Your task to perform on an android device: install app "Reddit" Image 0: 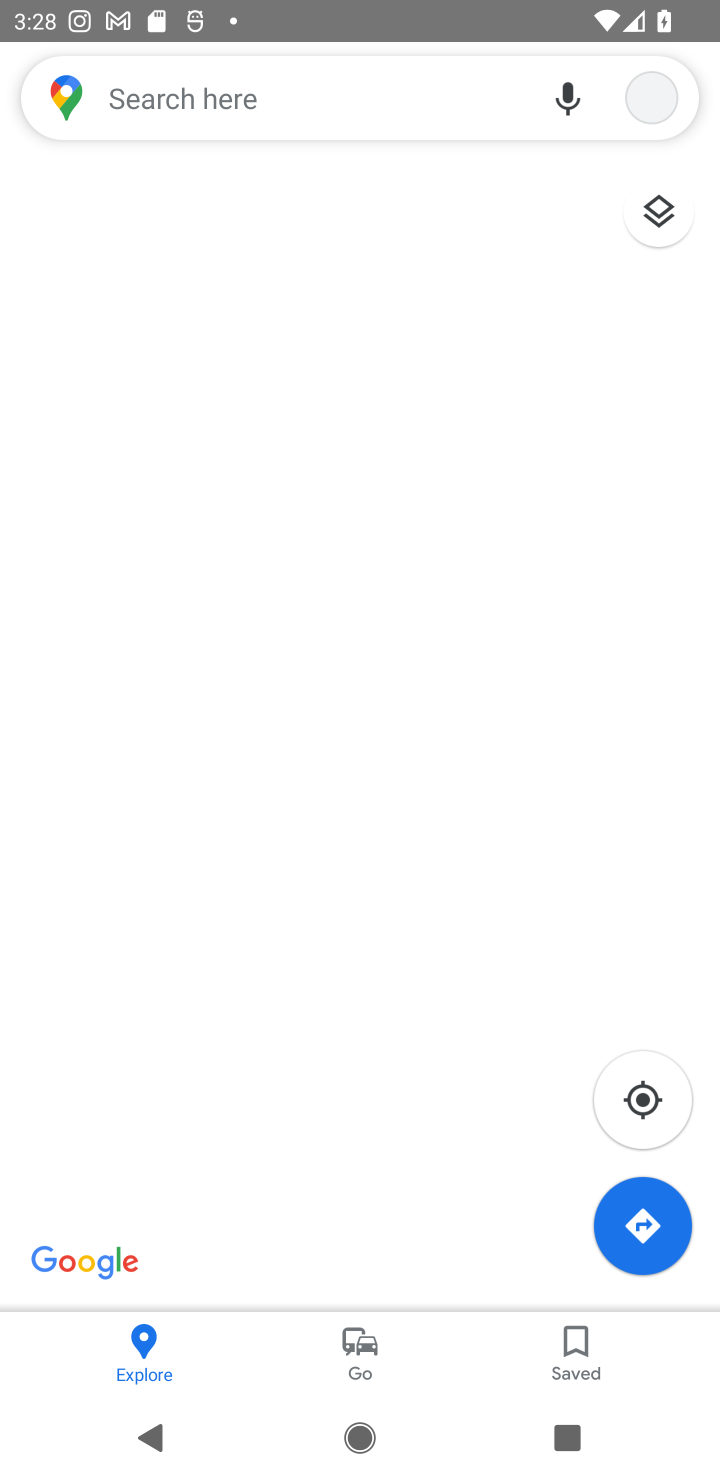
Step 0: press home button
Your task to perform on an android device: install app "Reddit" Image 1: 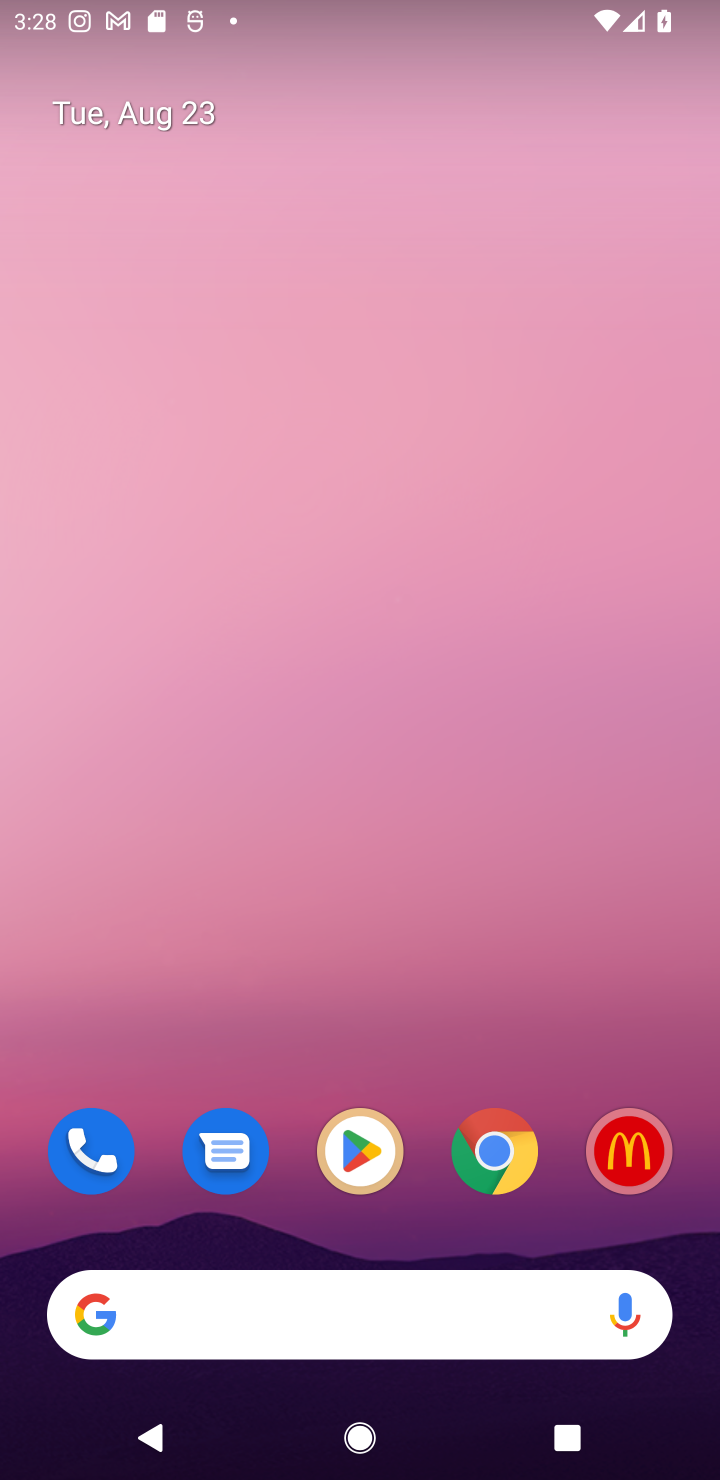
Step 1: click (360, 1134)
Your task to perform on an android device: install app "Reddit" Image 2: 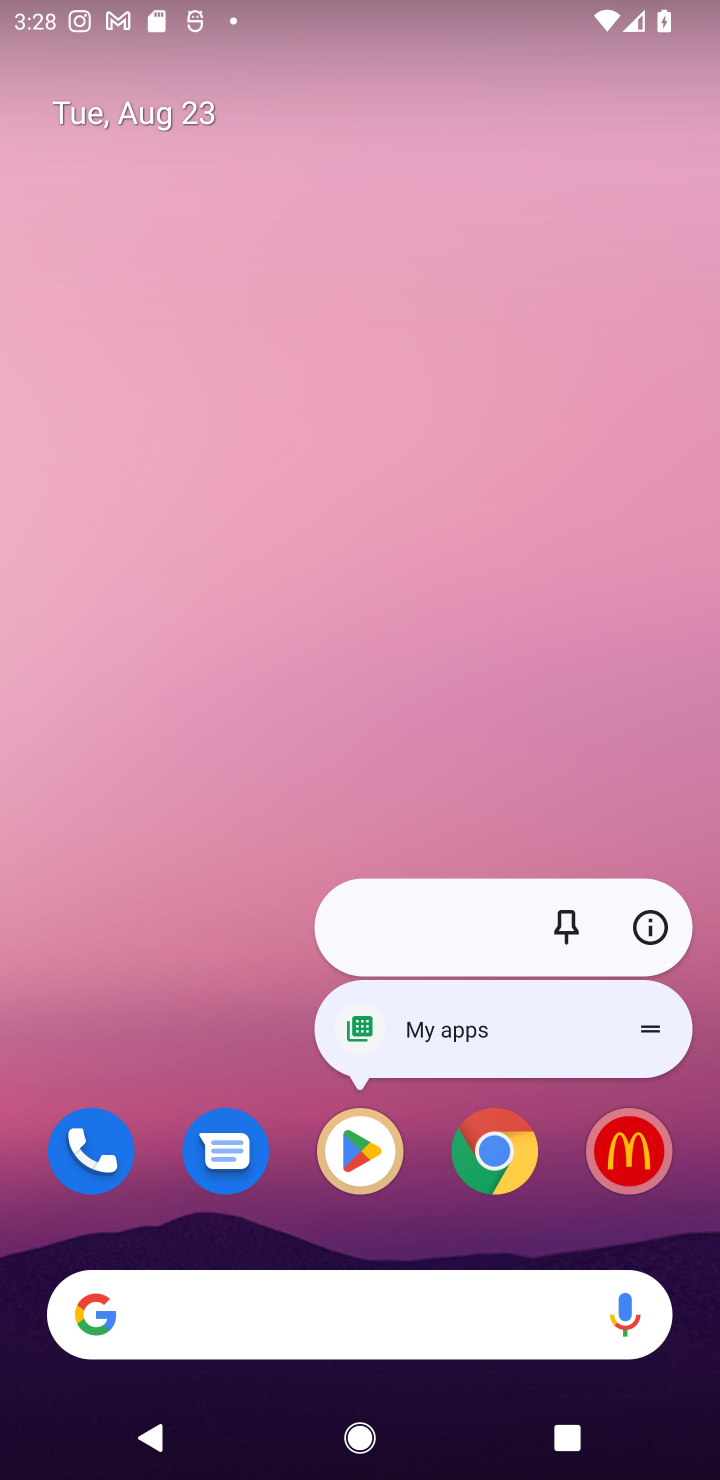
Step 2: click (362, 1147)
Your task to perform on an android device: install app "Reddit" Image 3: 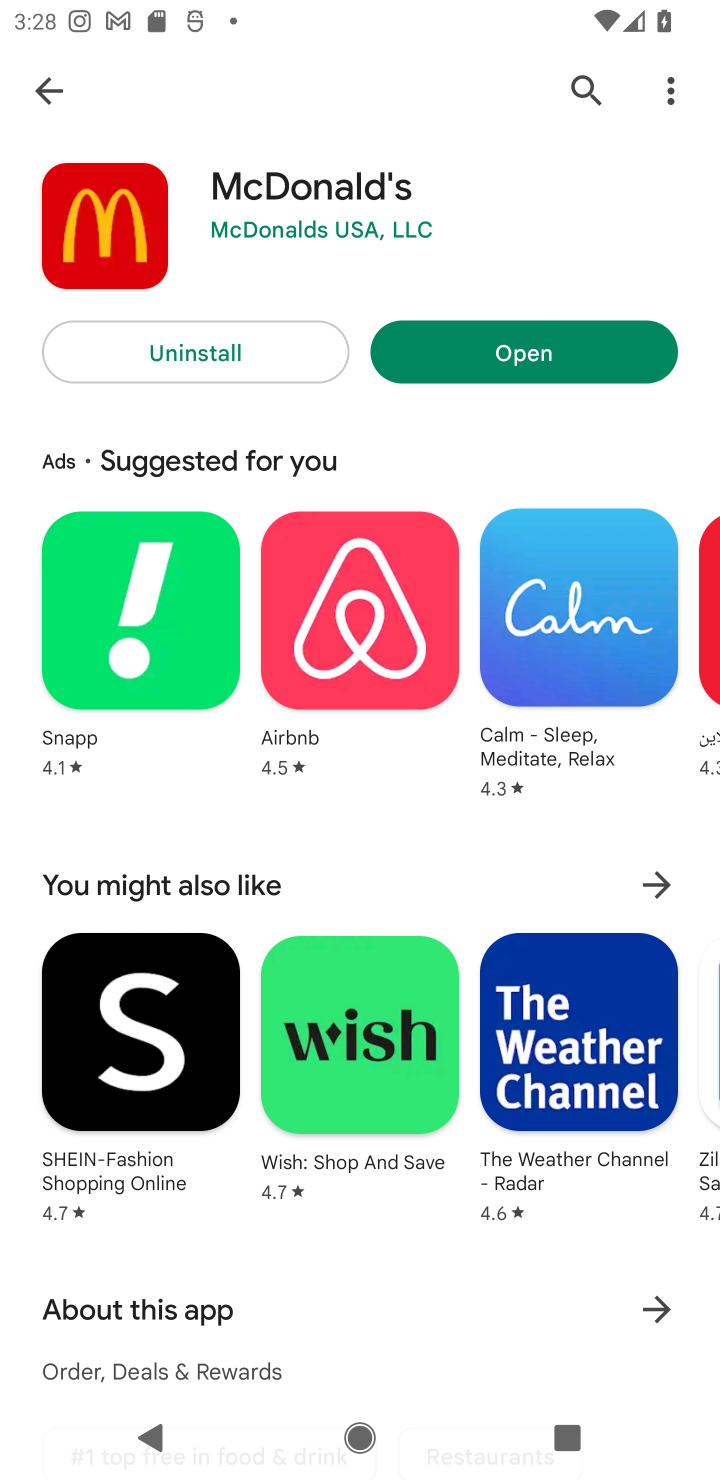
Step 3: click (591, 73)
Your task to perform on an android device: install app "Reddit" Image 4: 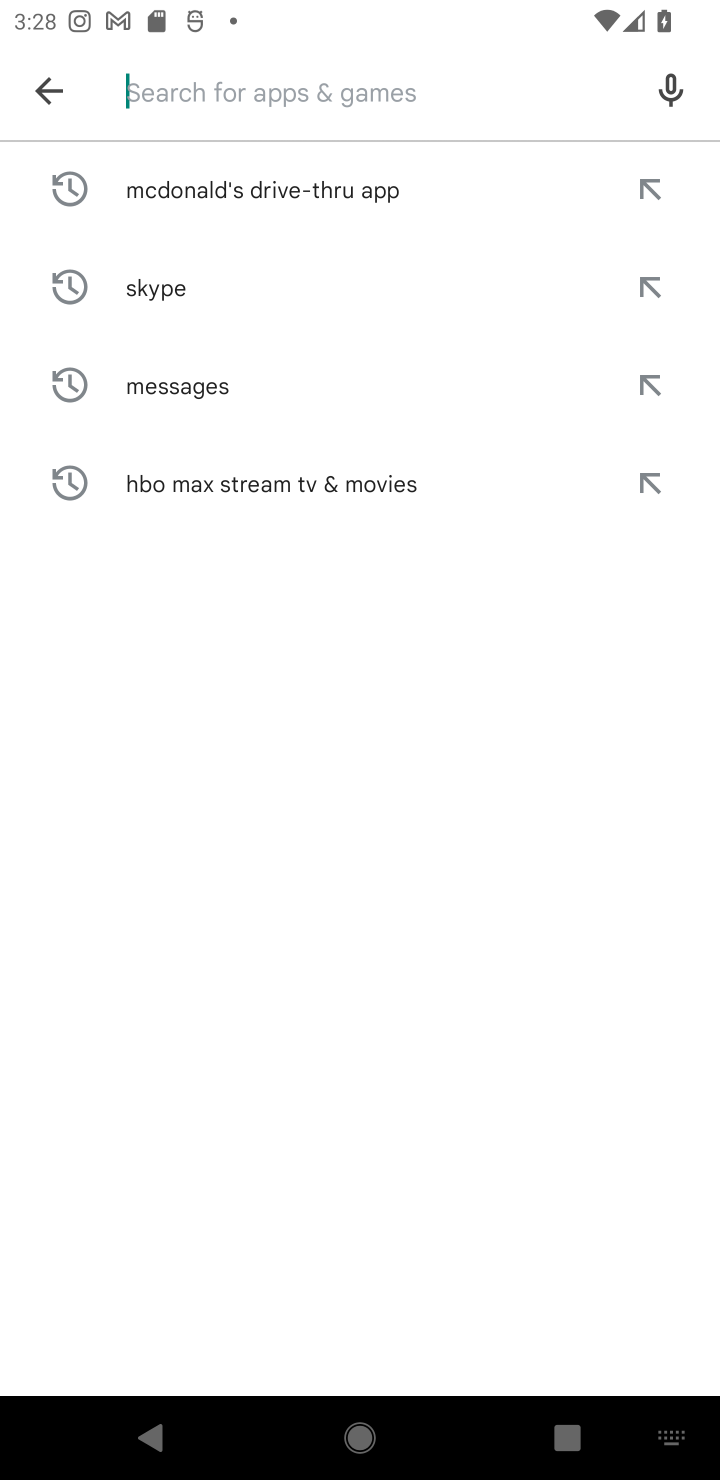
Step 4: type "Reddit"
Your task to perform on an android device: install app "Reddit" Image 5: 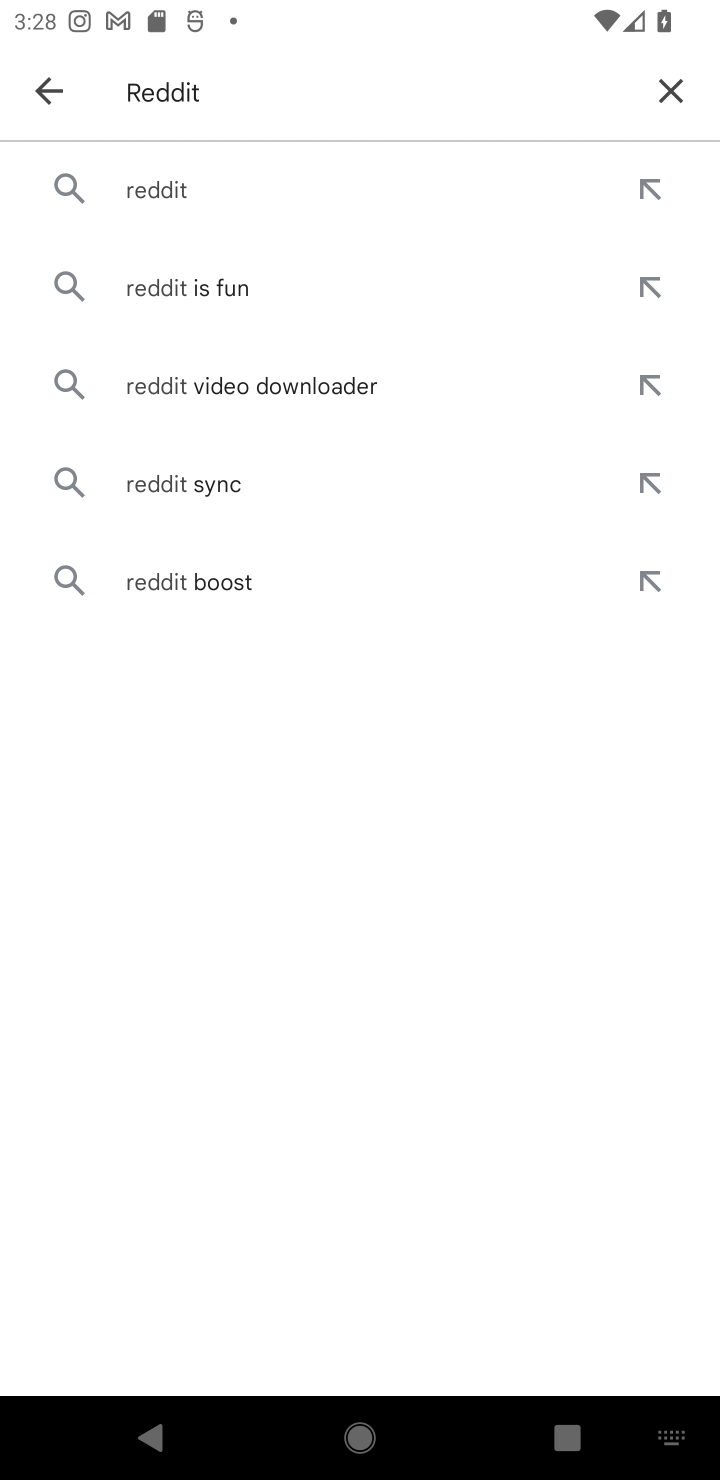
Step 5: click (179, 182)
Your task to perform on an android device: install app "Reddit" Image 6: 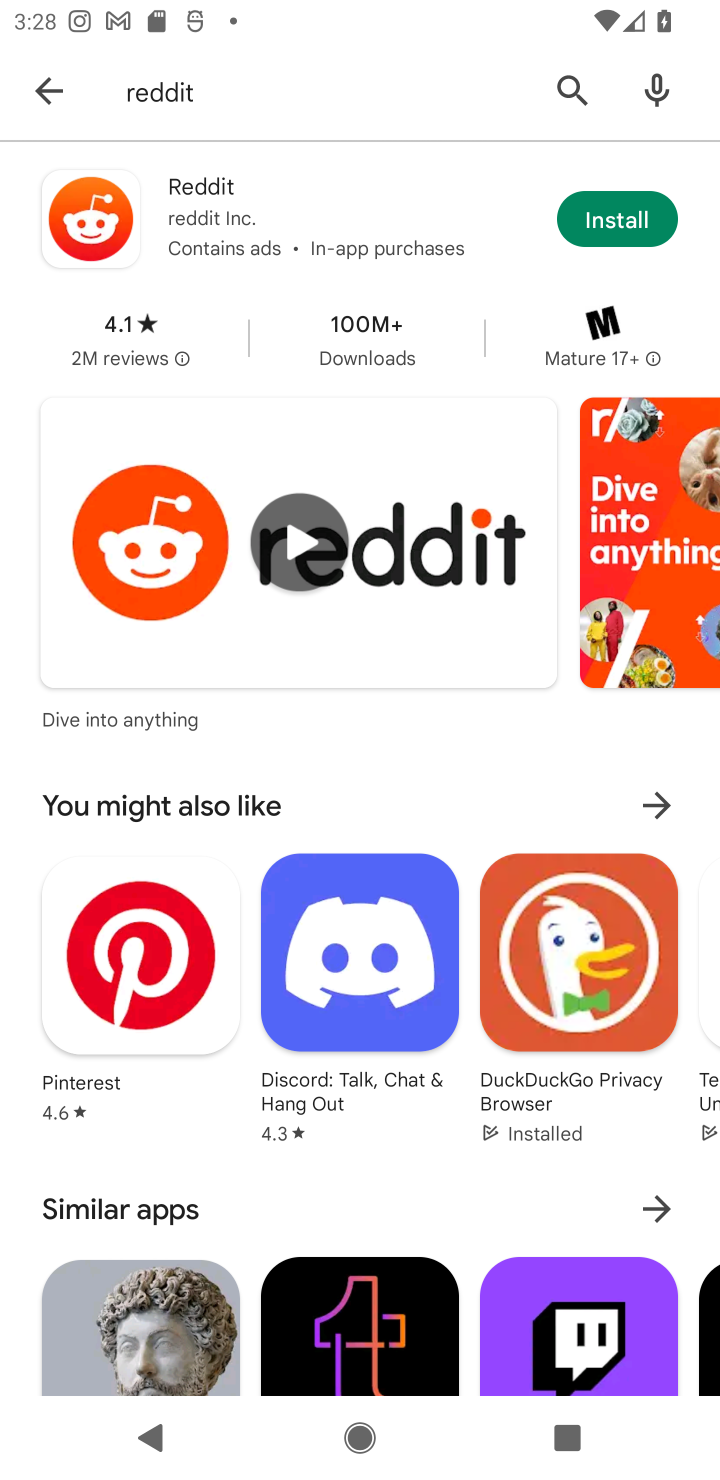
Step 6: click (605, 221)
Your task to perform on an android device: install app "Reddit" Image 7: 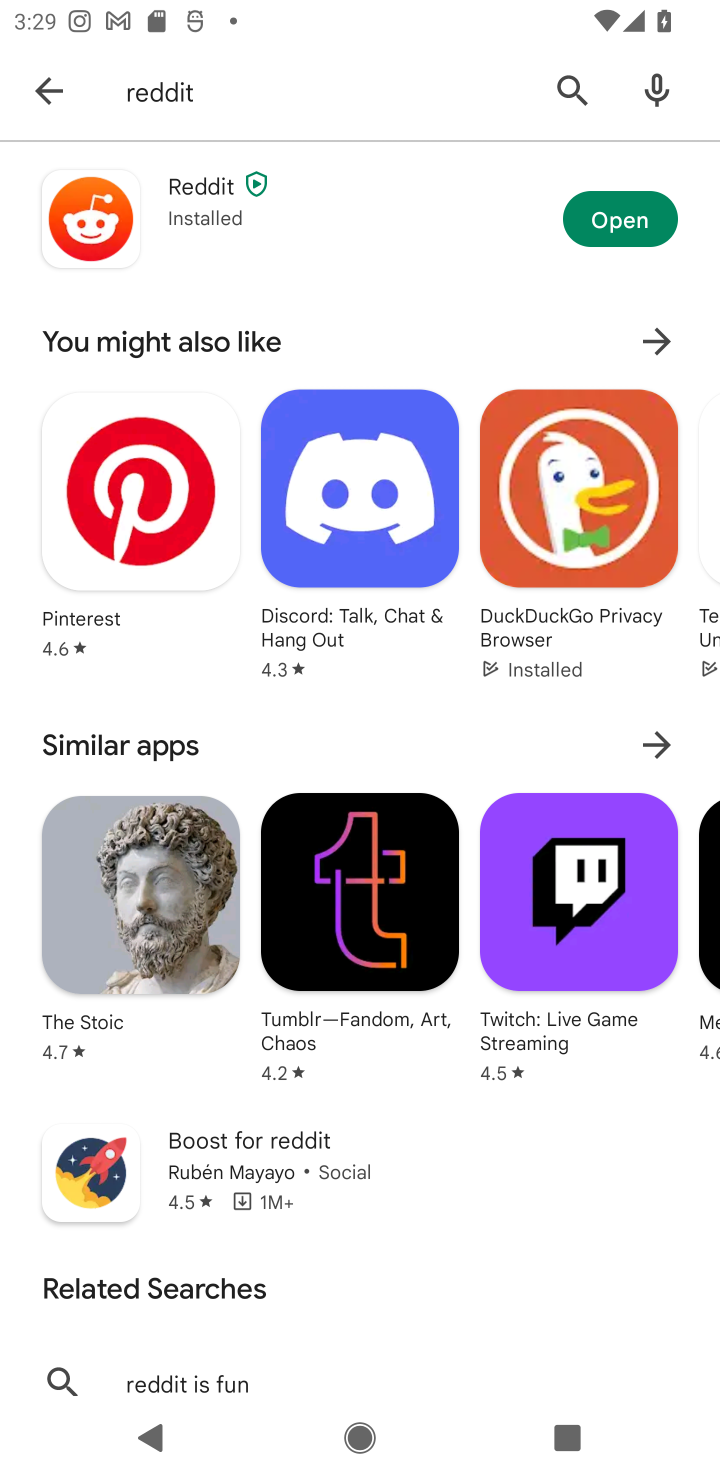
Step 7: task complete